Your task to perform on an android device: make emails show in primary in the gmail app Image 0: 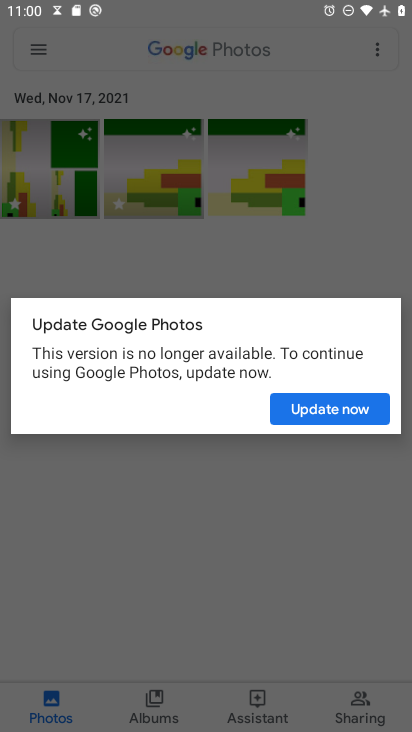
Step 0: press home button
Your task to perform on an android device: make emails show in primary in the gmail app Image 1: 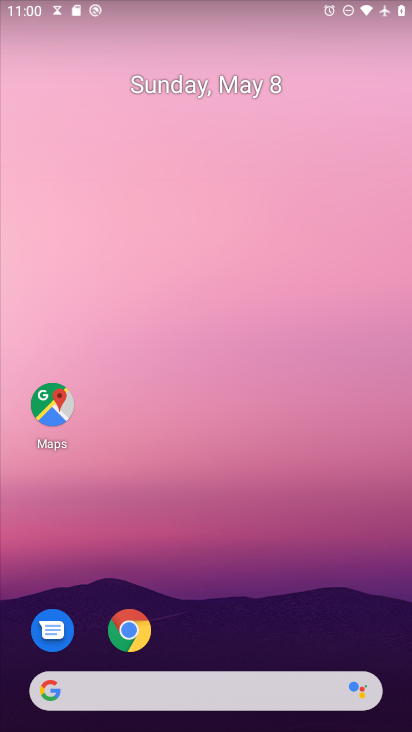
Step 1: drag from (219, 690) to (330, 114)
Your task to perform on an android device: make emails show in primary in the gmail app Image 2: 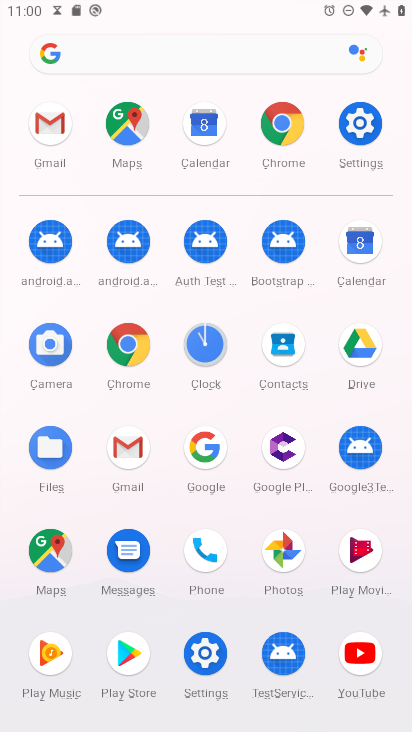
Step 2: click (129, 460)
Your task to perform on an android device: make emails show in primary in the gmail app Image 3: 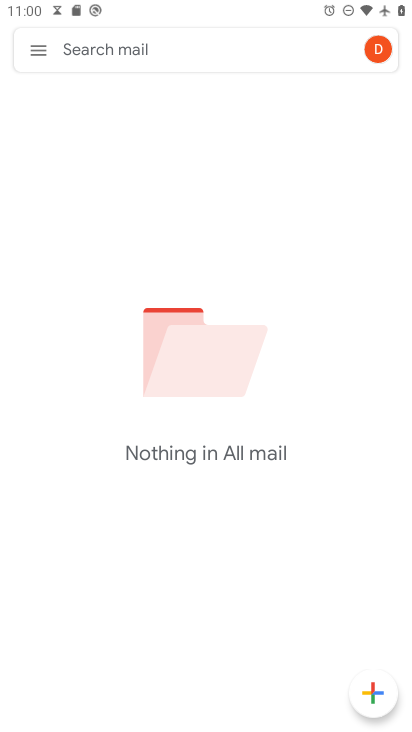
Step 3: click (44, 48)
Your task to perform on an android device: make emails show in primary in the gmail app Image 4: 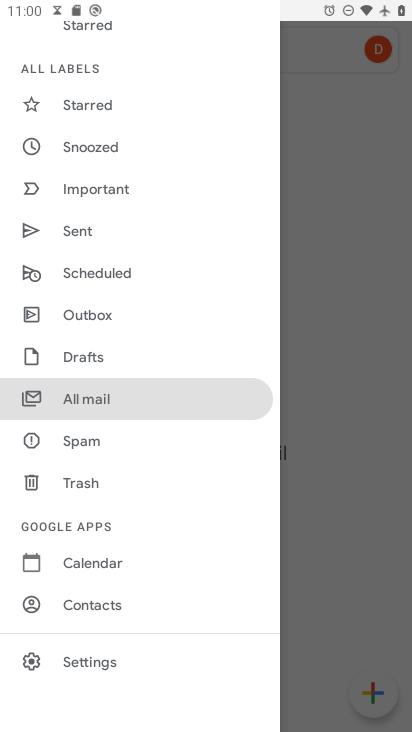
Step 4: click (90, 658)
Your task to perform on an android device: make emails show in primary in the gmail app Image 5: 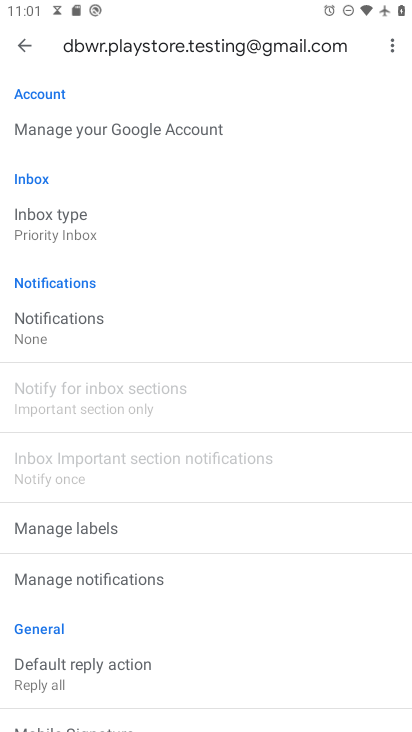
Step 5: task complete